Your task to perform on an android device: Show the shopping cart on ebay.com. Add "razer blackwidow" to the cart on ebay.com Image 0: 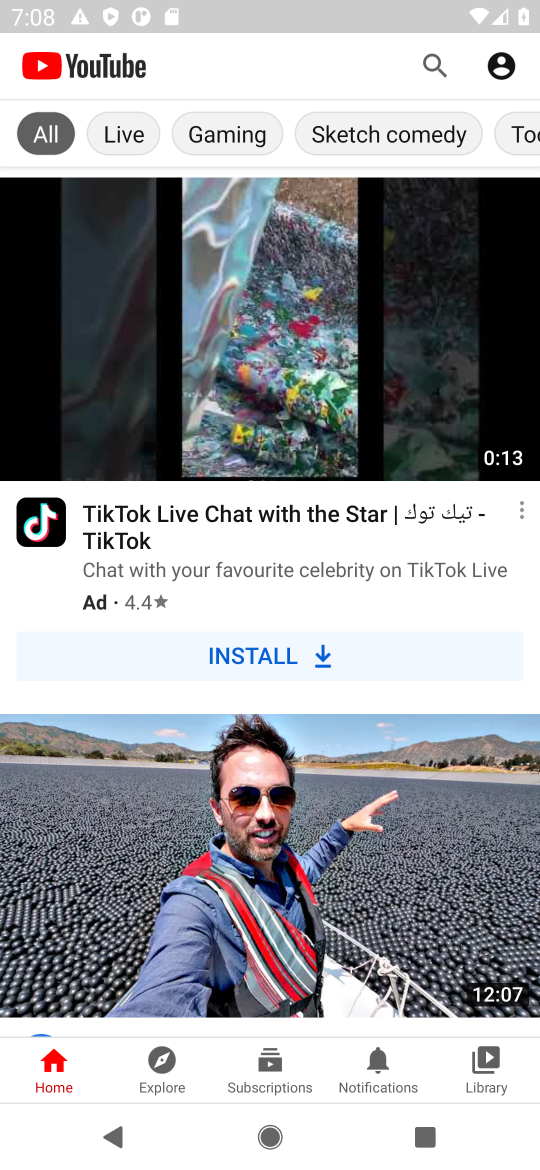
Step 0: press home button
Your task to perform on an android device: Show the shopping cart on ebay.com. Add "razer blackwidow" to the cart on ebay.com Image 1: 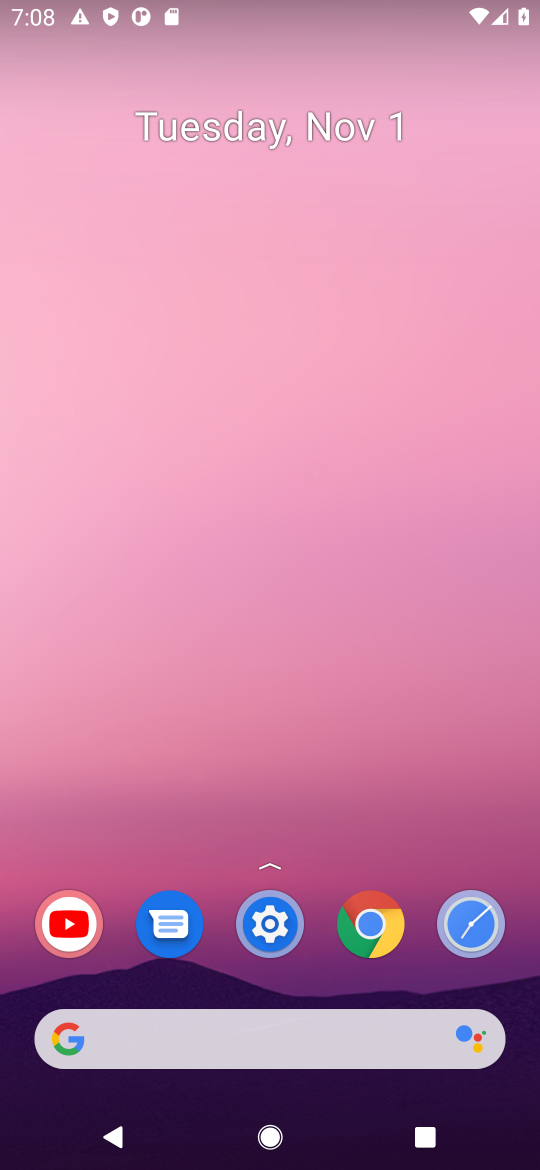
Step 1: click (100, 1040)
Your task to perform on an android device: Show the shopping cart on ebay.com. Add "razer blackwidow" to the cart on ebay.com Image 2: 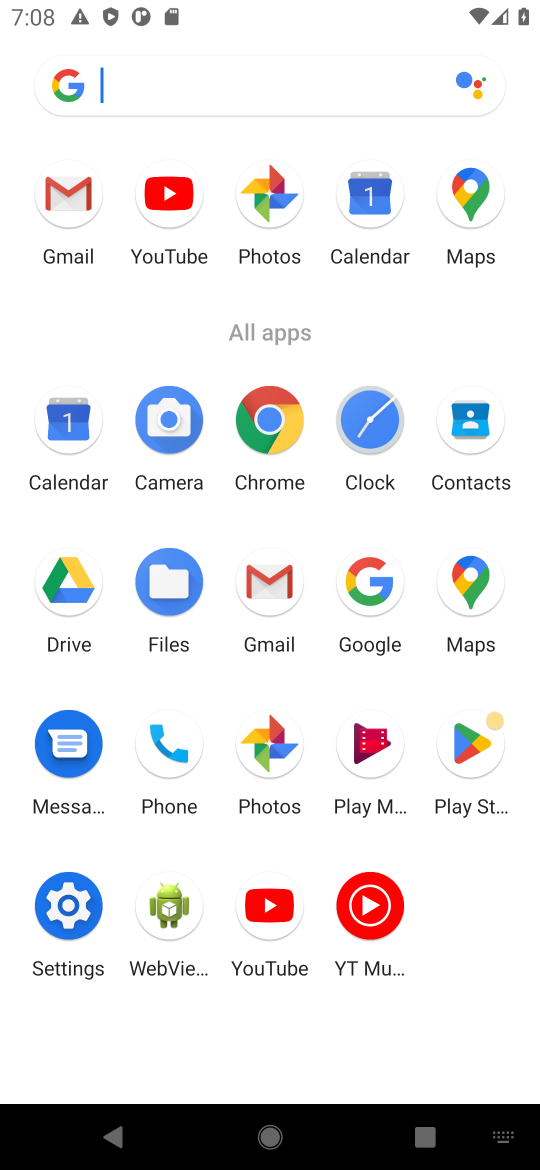
Step 2: click (372, 592)
Your task to perform on an android device: Show the shopping cart on ebay.com. Add "razer blackwidow" to the cart on ebay.com Image 3: 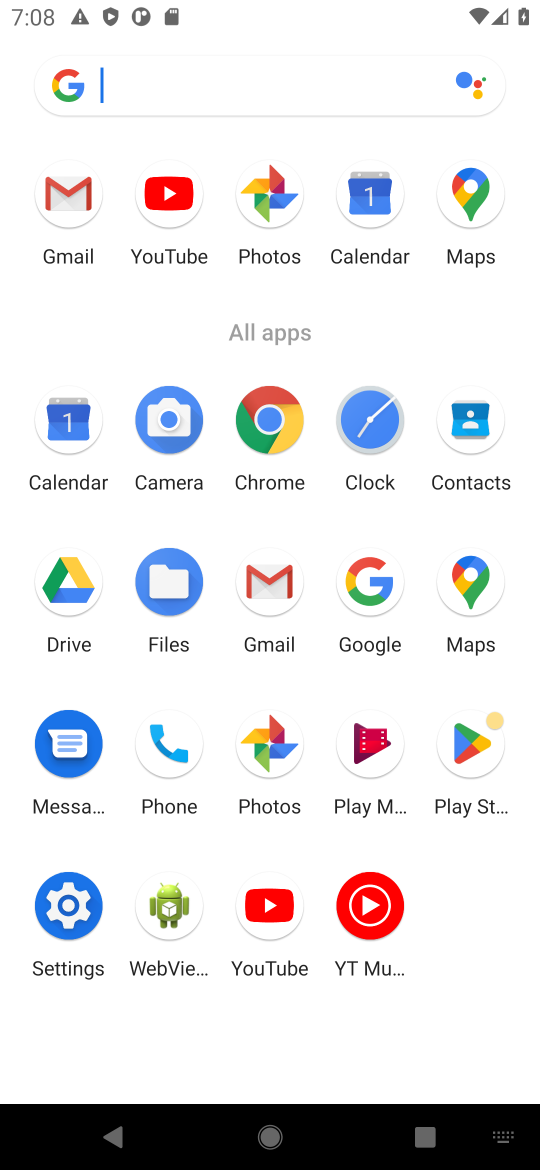
Step 3: click (372, 592)
Your task to perform on an android device: Show the shopping cart on ebay.com. Add "razer blackwidow" to the cart on ebay.com Image 4: 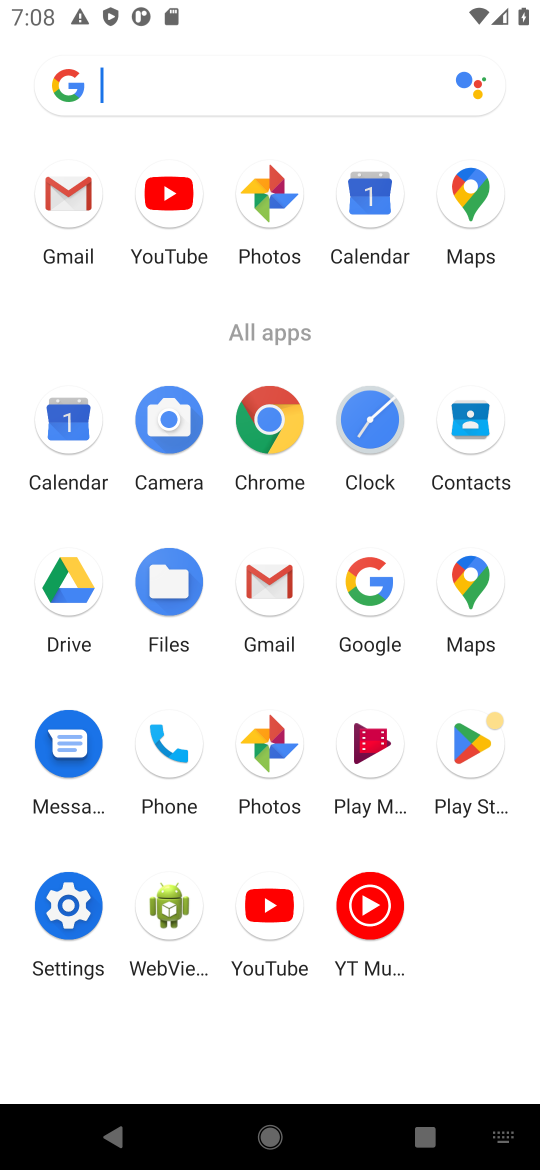
Step 4: press home button
Your task to perform on an android device: Show the shopping cart on ebay.com. Add "razer blackwidow" to the cart on ebay.com Image 5: 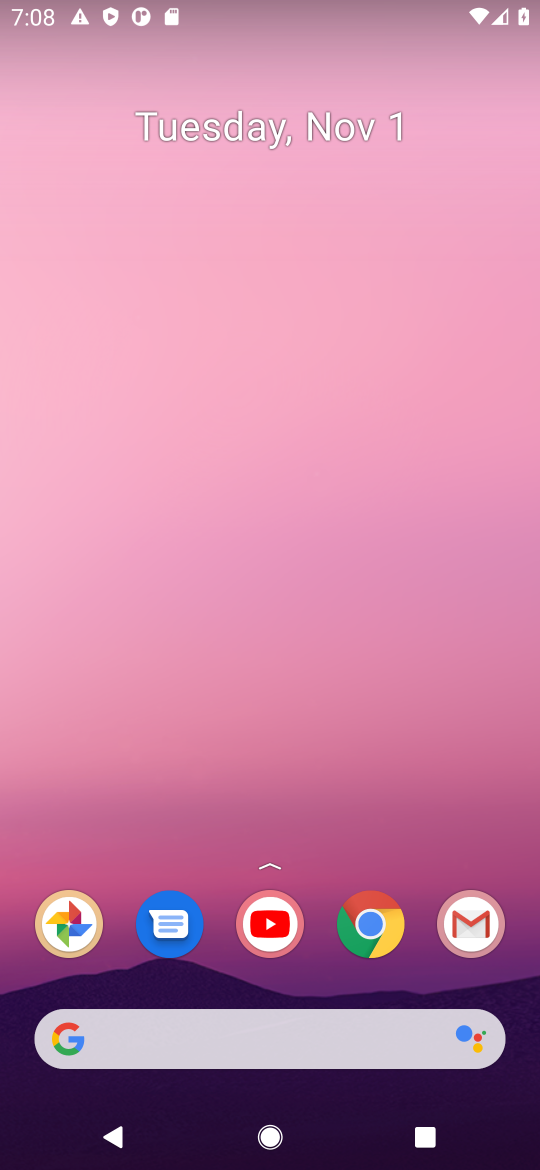
Step 5: click (102, 1048)
Your task to perform on an android device: Show the shopping cart on ebay.com. Add "razer blackwidow" to the cart on ebay.com Image 6: 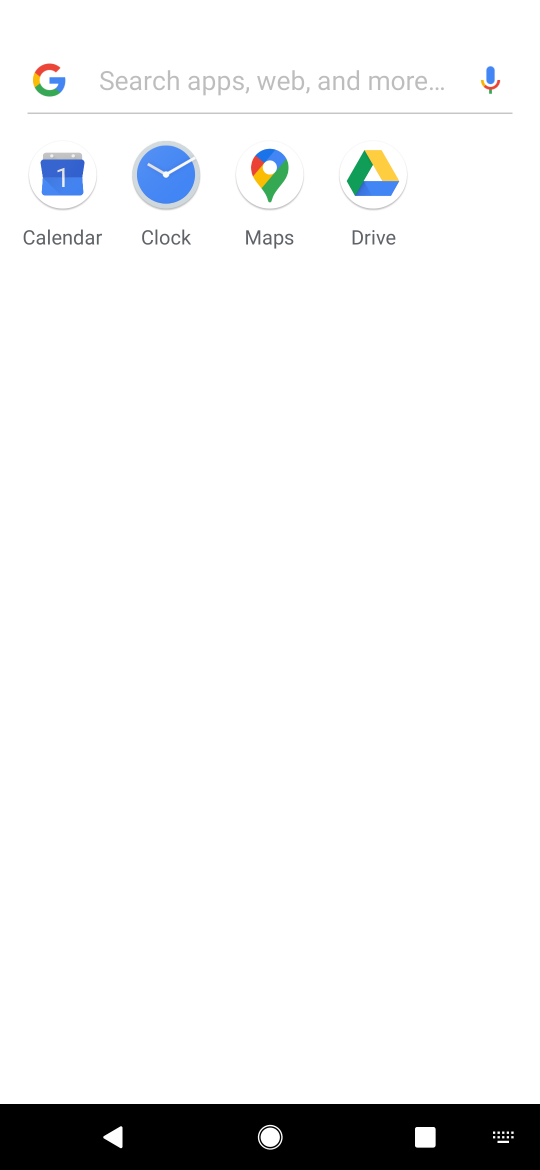
Step 6: press home button
Your task to perform on an android device: Show the shopping cart on ebay.com. Add "razer blackwidow" to the cart on ebay.com Image 7: 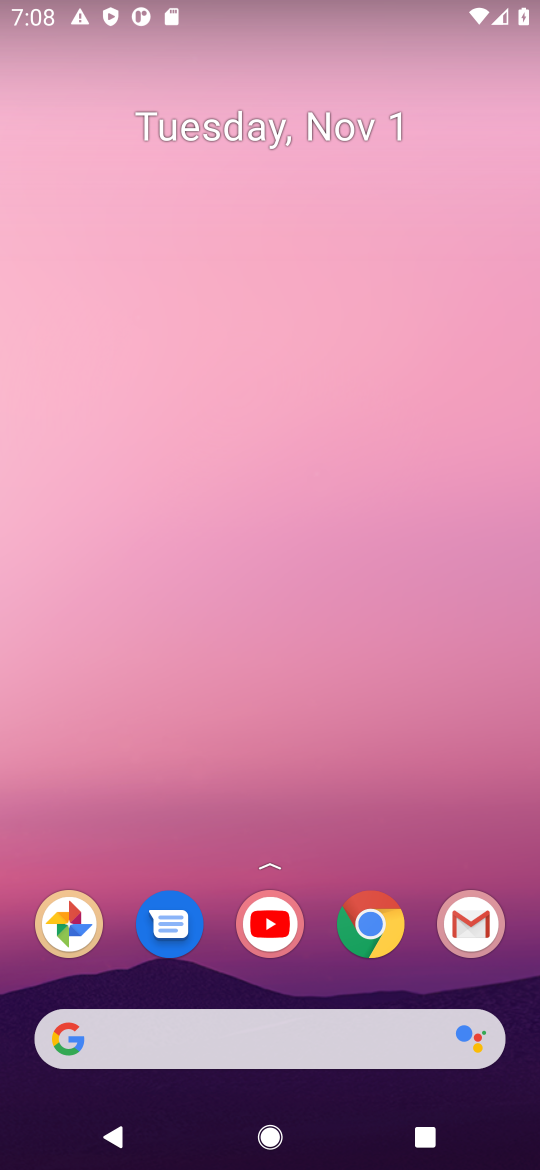
Step 7: drag from (385, 754) to (393, 14)
Your task to perform on an android device: Show the shopping cart on ebay.com. Add "razer blackwidow" to the cart on ebay.com Image 8: 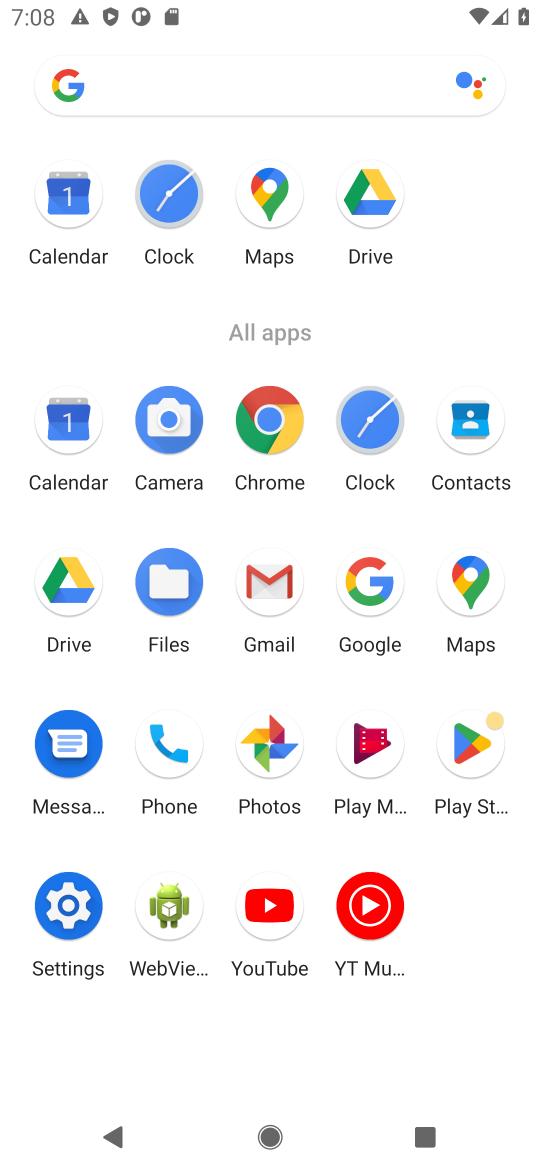
Step 8: click (364, 602)
Your task to perform on an android device: Show the shopping cart on ebay.com. Add "razer blackwidow" to the cart on ebay.com Image 9: 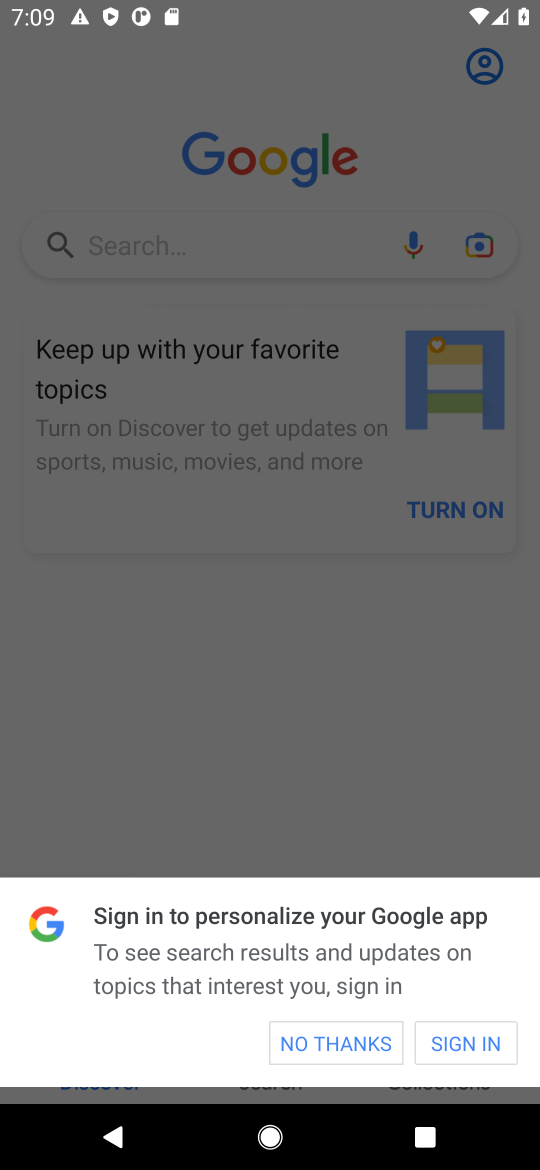
Step 9: click (472, 1039)
Your task to perform on an android device: Show the shopping cart on ebay.com. Add "razer blackwidow" to the cart on ebay.com Image 10: 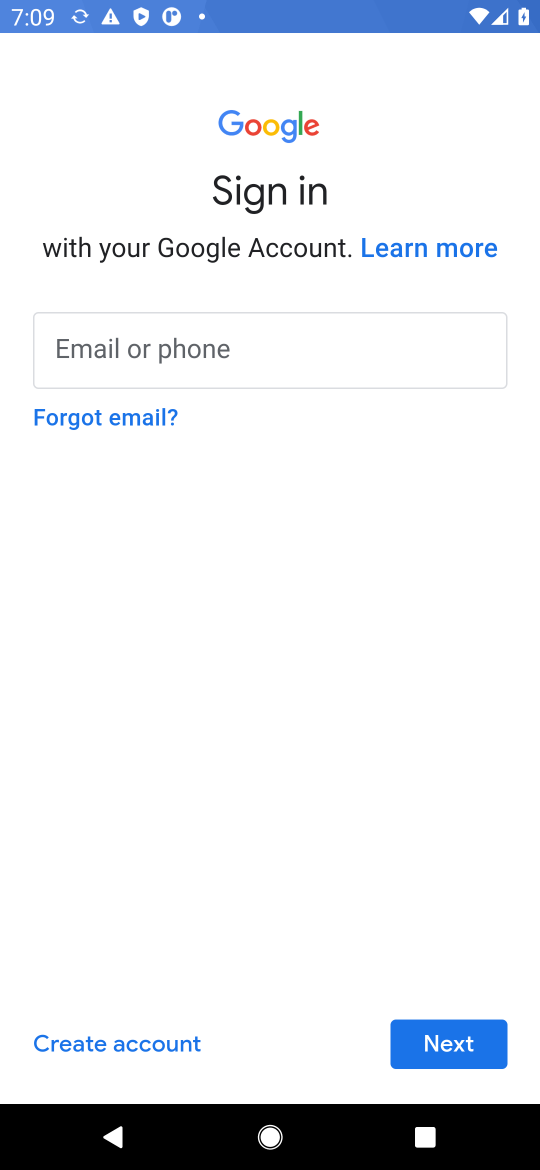
Step 10: press back button
Your task to perform on an android device: Show the shopping cart on ebay.com. Add "razer blackwidow" to the cart on ebay.com Image 11: 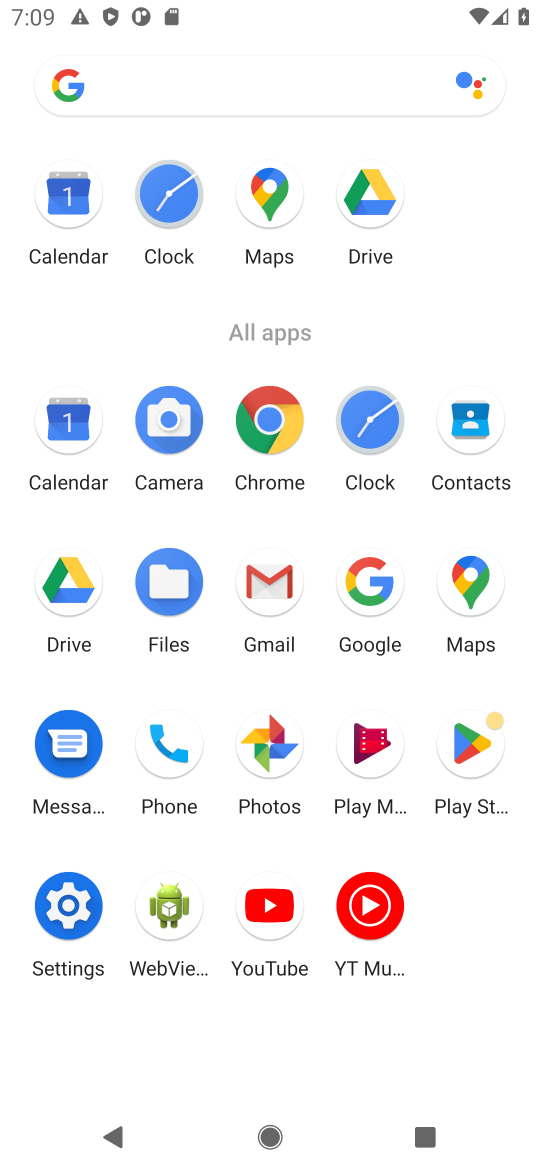
Step 11: click (363, 586)
Your task to perform on an android device: Show the shopping cart on ebay.com. Add "razer blackwidow" to the cart on ebay.com Image 12: 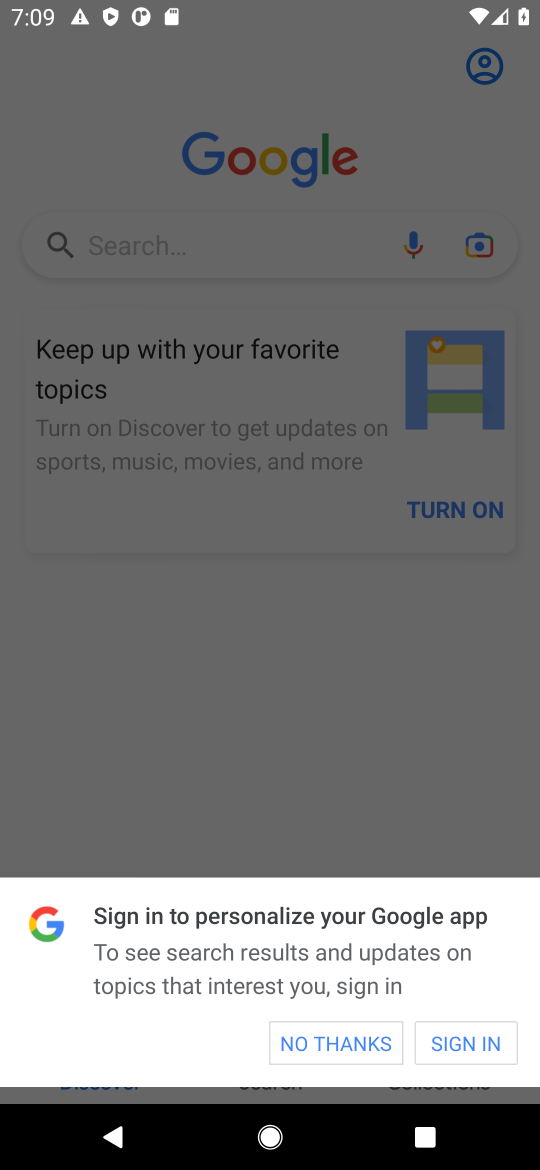
Step 12: click (332, 1049)
Your task to perform on an android device: Show the shopping cart on ebay.com. Add "razer blackwidow" to the cart on ebay.com Image 13: 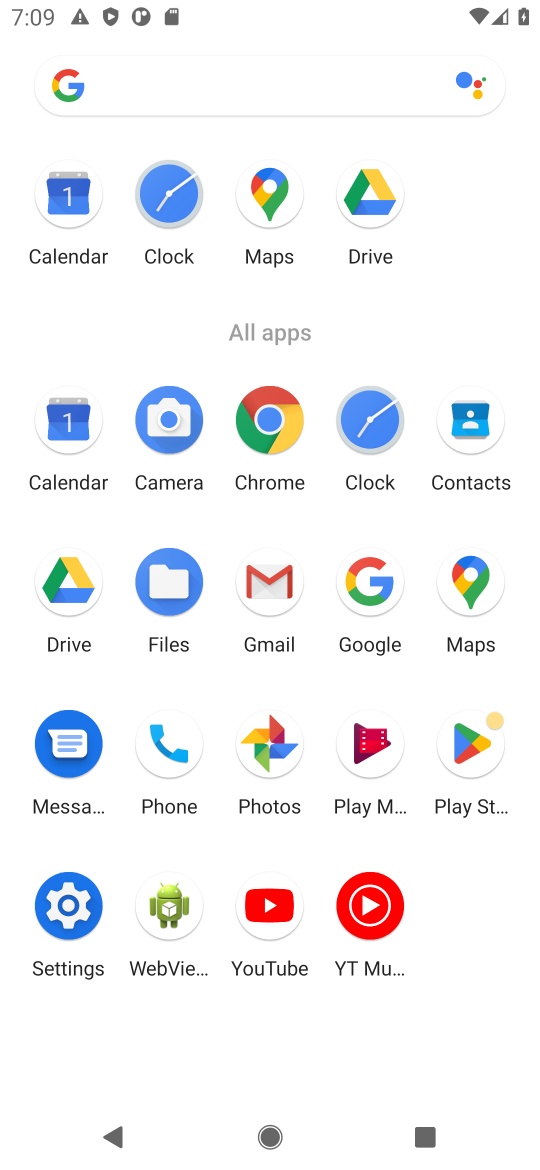
Step 13: click (382, 604)
Your task to perform on an android device: Show the shopping cart on ebay.com. Add "razer blackwidow" to the cart on ebay.com Image 14: 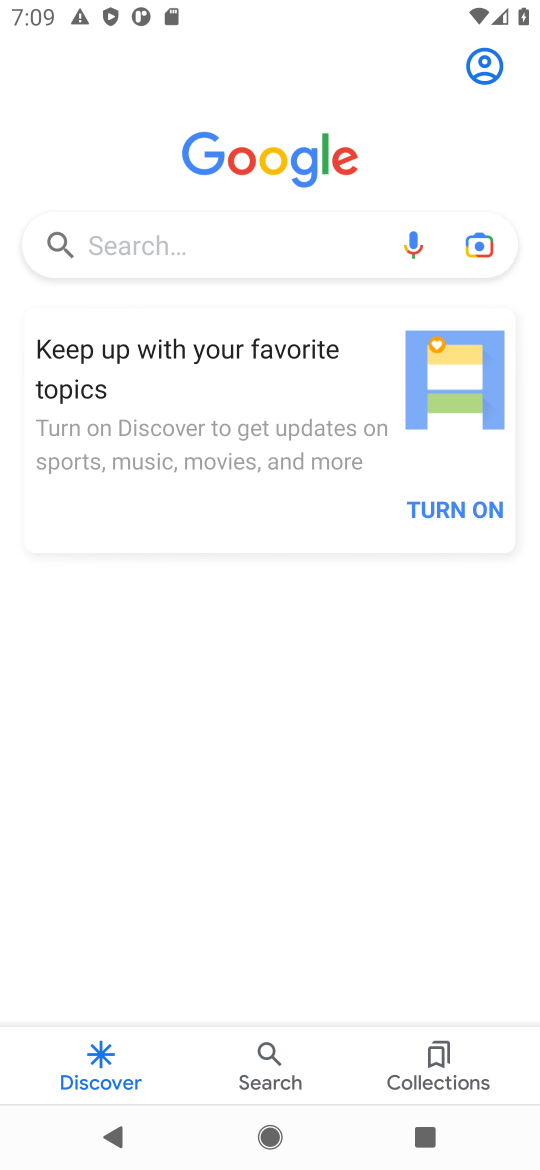
Step 14: click (165, 234)
Your task to perform on an android device: Show the shopping cart on ebay.com. Add "razer blackwidow" to the cart on ebay.com Image 15: 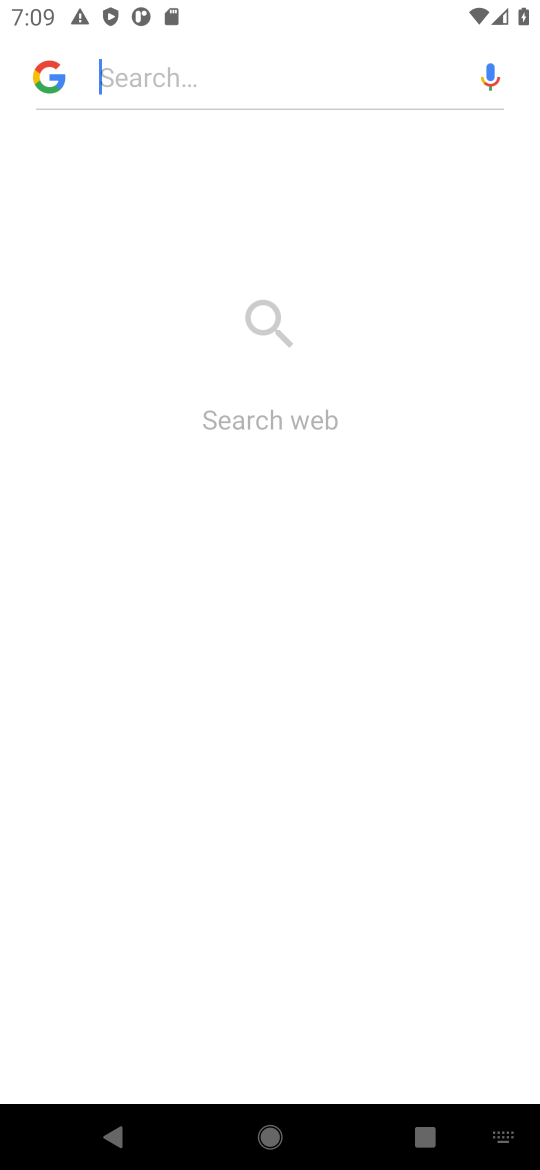
Step 15: press enter
Your task to perform on an android device: Show the shopping cart on ebay.com. Add "razer blackwidow" to the cart on ebay.com Image 16: 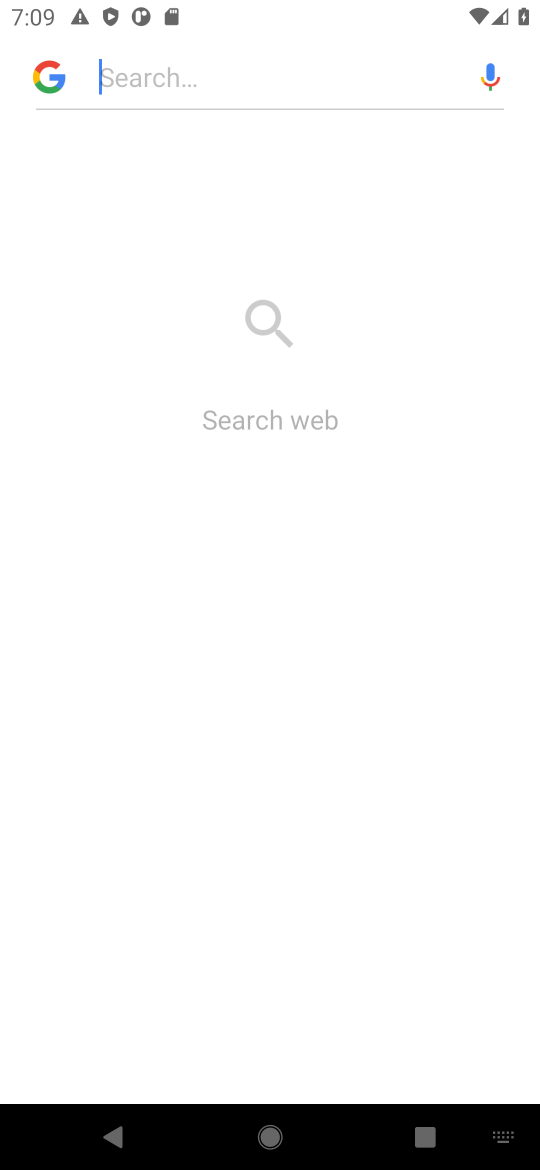
Step 16: type "ebay.com"
Your task to perform on an android device: Show the shopping cart on ebay.com. Add "razer blackwidow" to the cart on ebay.com Image 17: 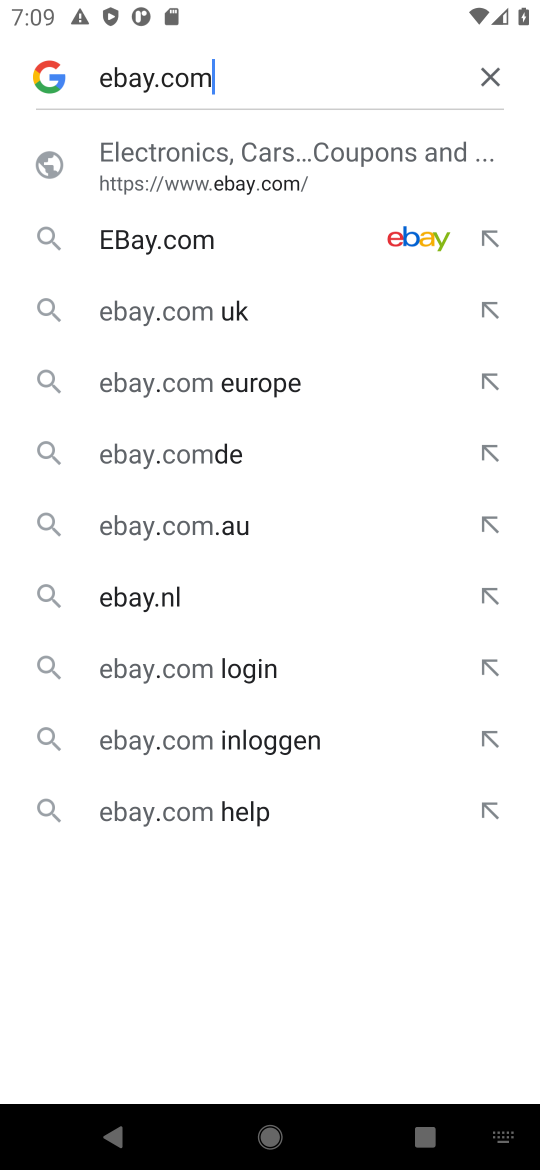
Step 17: press enter
Your task to perform on an android device: Show the shopping cart on ebay.com. Add "razer blackwidow" to the cart on ebay.com Image 18: 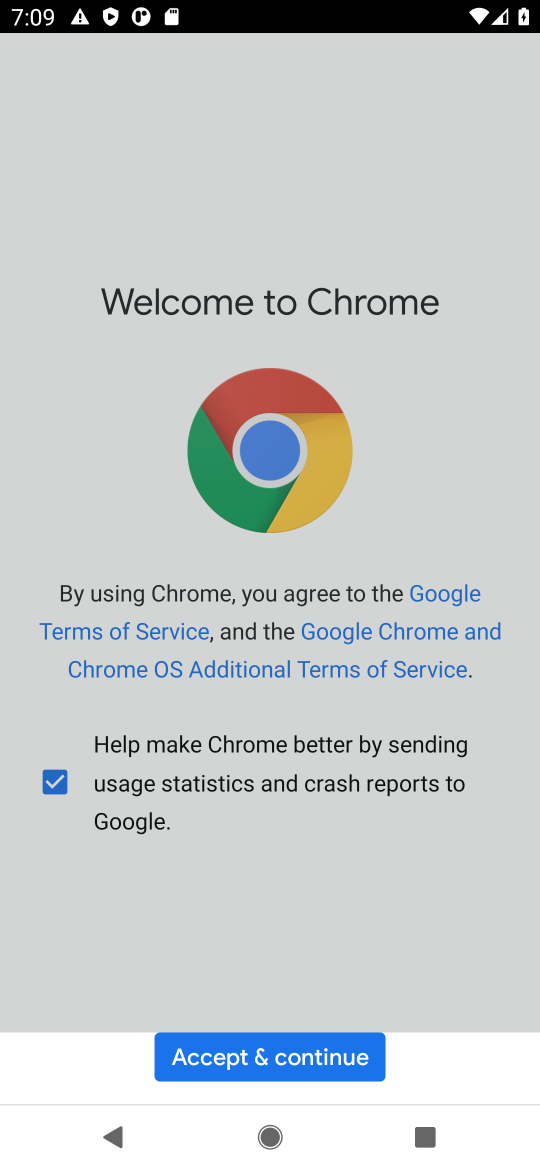
Step 18: click (336, 1066)
Your task to perform on an android device: Show the shopping cart on ebay.com. Add "razer blackwidow" to the cart on ebay.com Image 19: 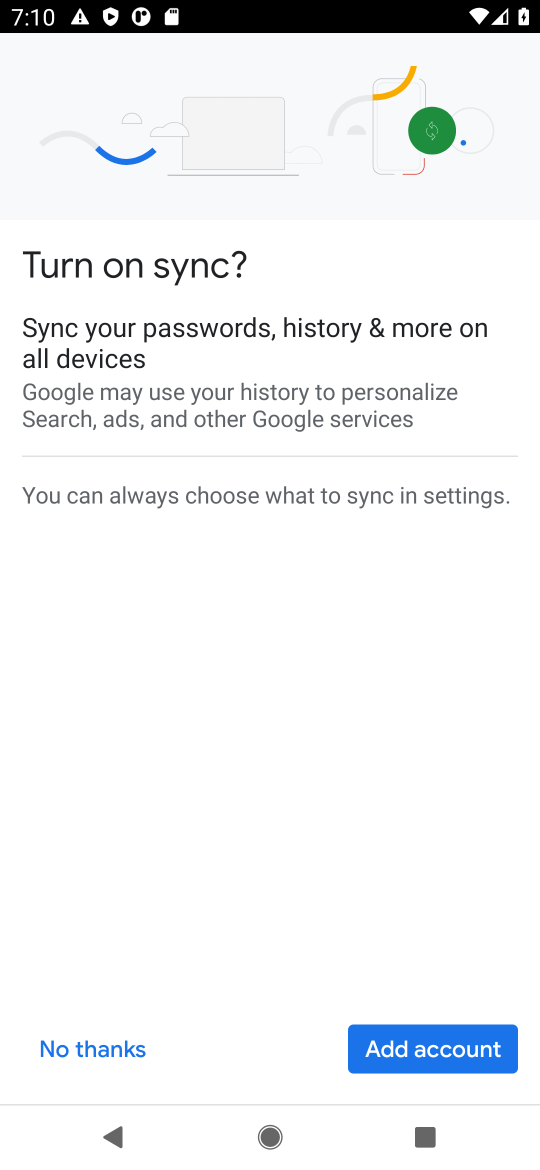
Step 19: click (65, 1057)
Your task to perform on an android device: Show the shopping cart on ebay.com. Add "razer blackwidow" to the cart on ebay.com Image 20: 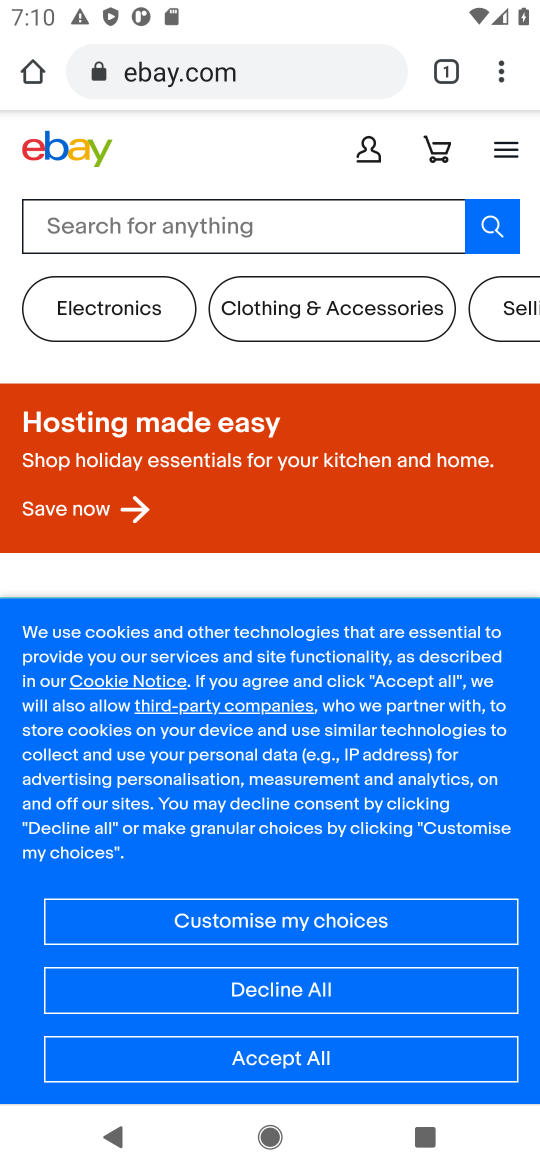
Step 20: click (311, 1063)
Your task to perform on an android device: Show the shopping cart on ebay.com. Add "razer blackwidow" to the cart on ebay.com Image 21: 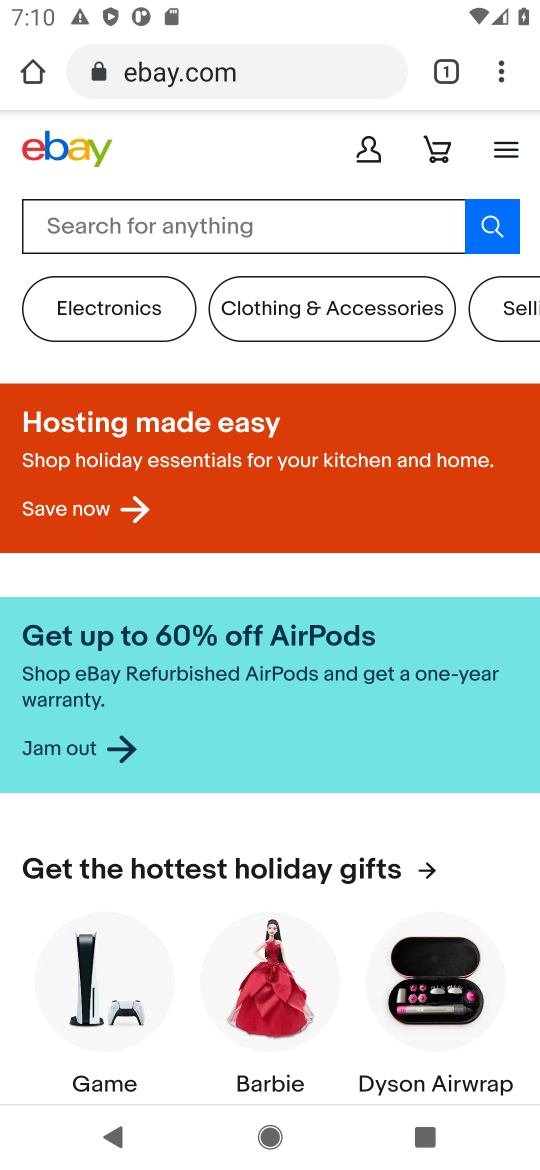
Step 21: click (435, 153)
Your task to perform on an android device: Show the shopping cart on ebay.com. Add "razer blackwidow" to the cart on ebay.com Image 22: 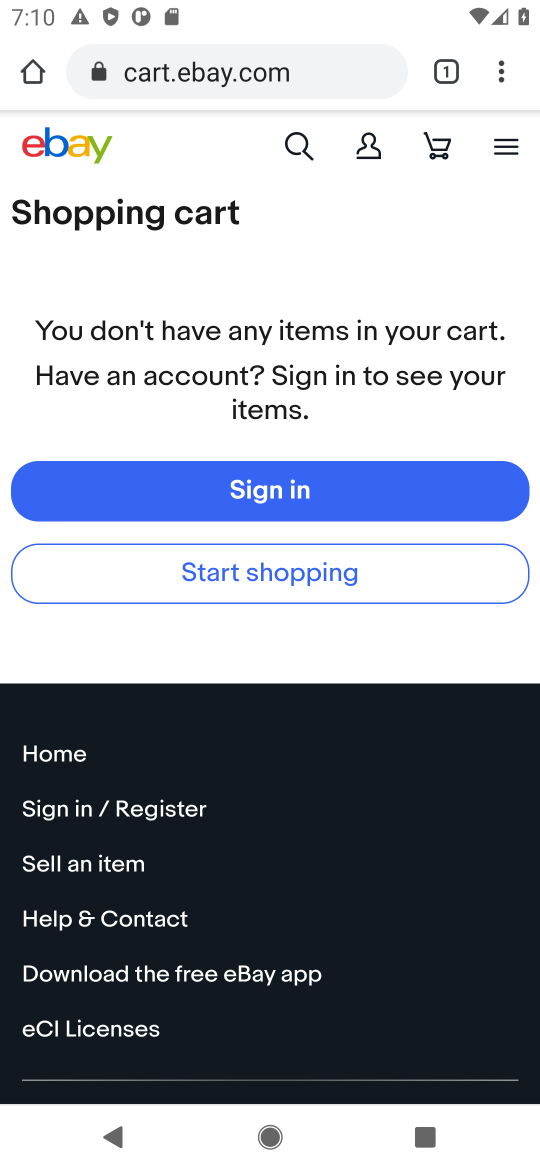
Step 22: click (301, 150)
Your task to perform on an android device: Show the shopping cart on ebay.com. Add "razer blackwidow" to the cart on ebay.com Image 23: 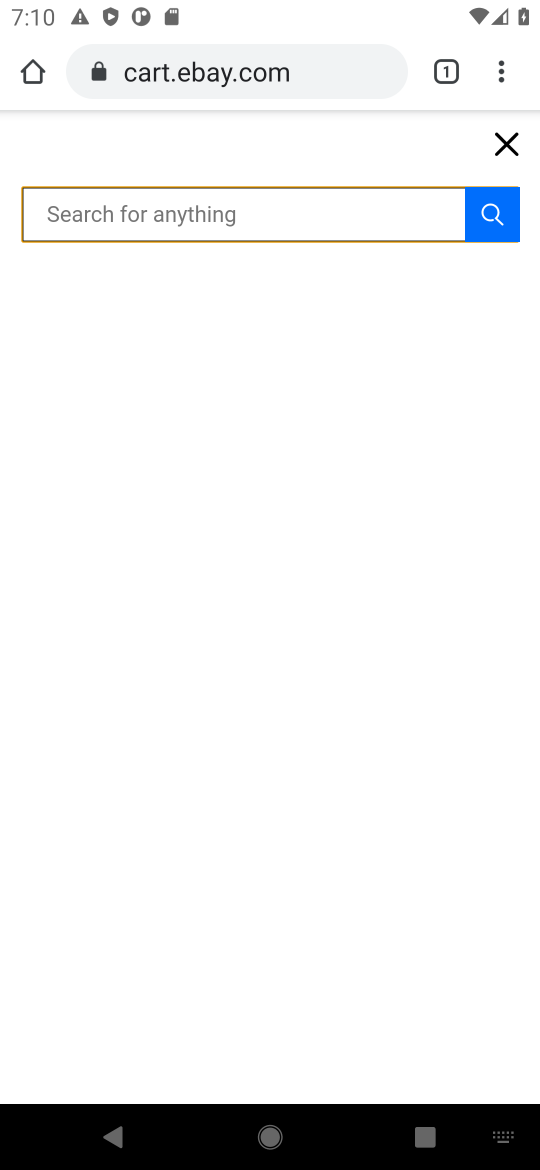
Step 23: press enter
Your task to perform on an android device: Show the shopping cart on ebay.com. Add "razer blackwidow" to the cart on ebay.com Image 24: 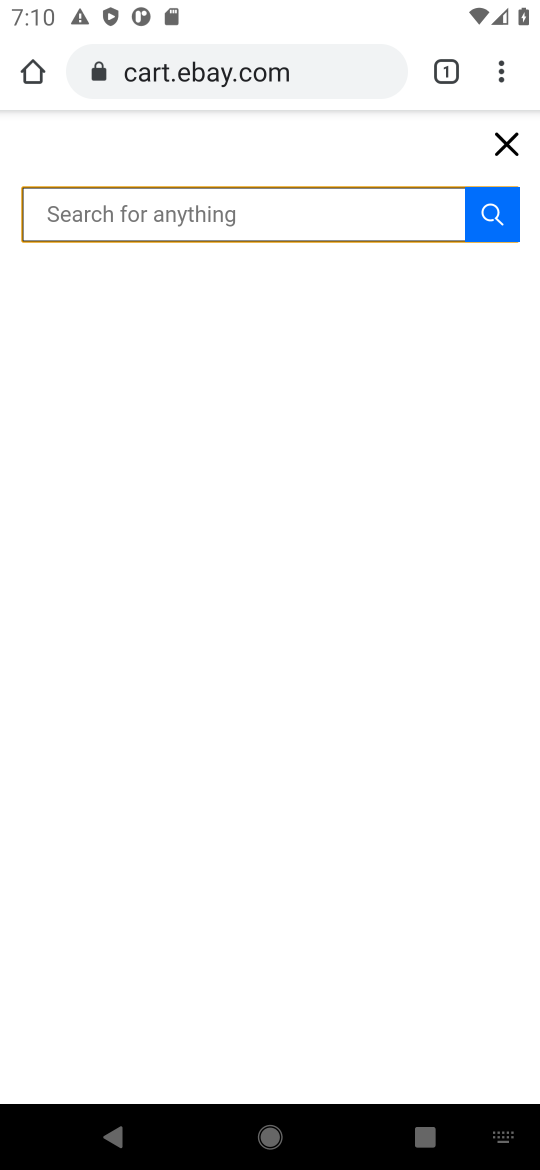
Step 24: type "razer blackwidow"
Your task to perform on an android device: Show the shopping cart on ebay.com. Add "razer blackwidow" to the cart on ebay.com Image 25: 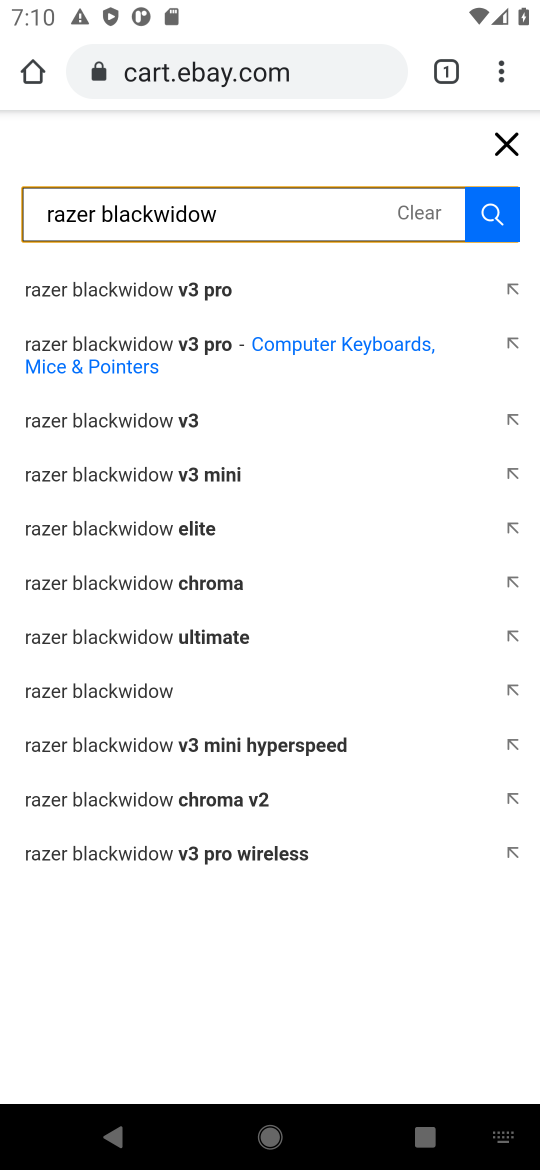
Step 25: press enter
Your task to perform on an android device: Show the shopping cart on ebay.com. Add "razer blackwidow" to the cart on ebay.com Image 26: 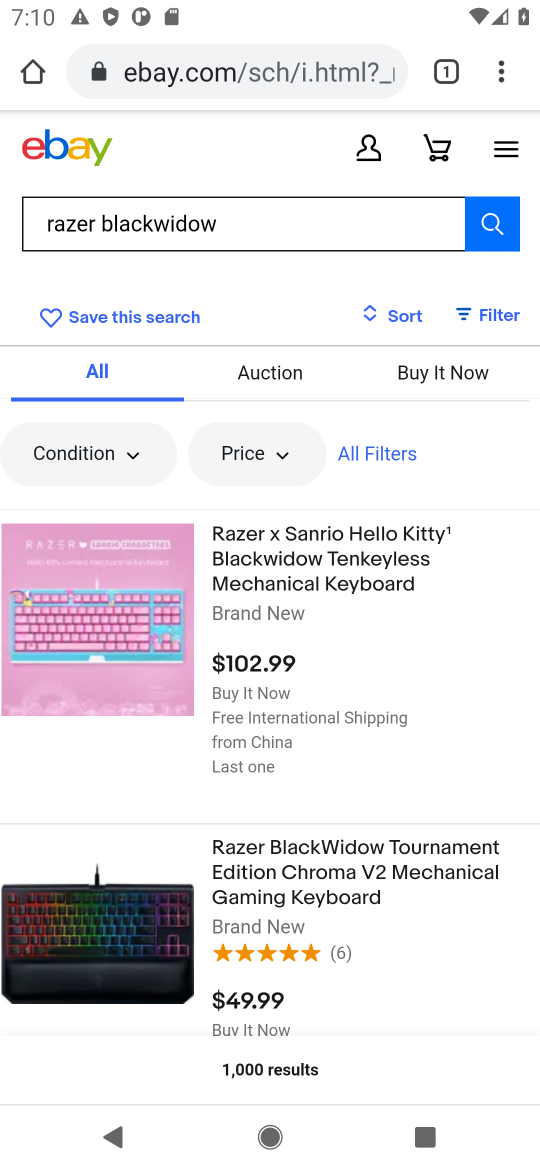
Step 26: click (335, 890)
Your task to perform on an android device: Show the shopping cart on ebay.com. Add "razer blackwidow" to the cart on ebay.com Image 27: 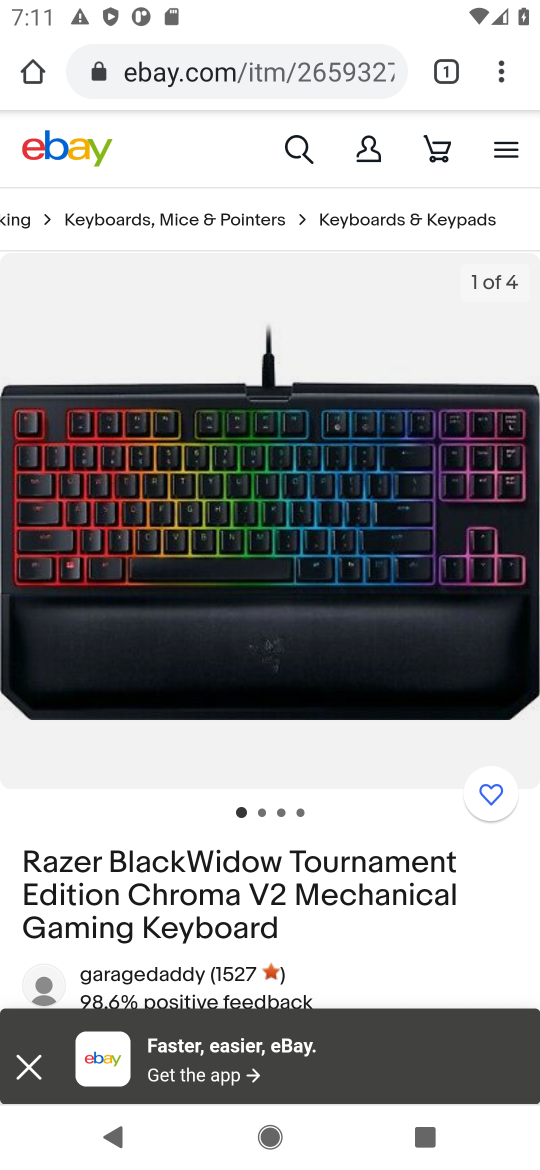
Step 27: drag from (346, 941) to (357, 449)
Your task to perform on an android device: Show the shopping cart on ebay.com. Add "razer blackwidow" to the cart on ebay.com Image 28: 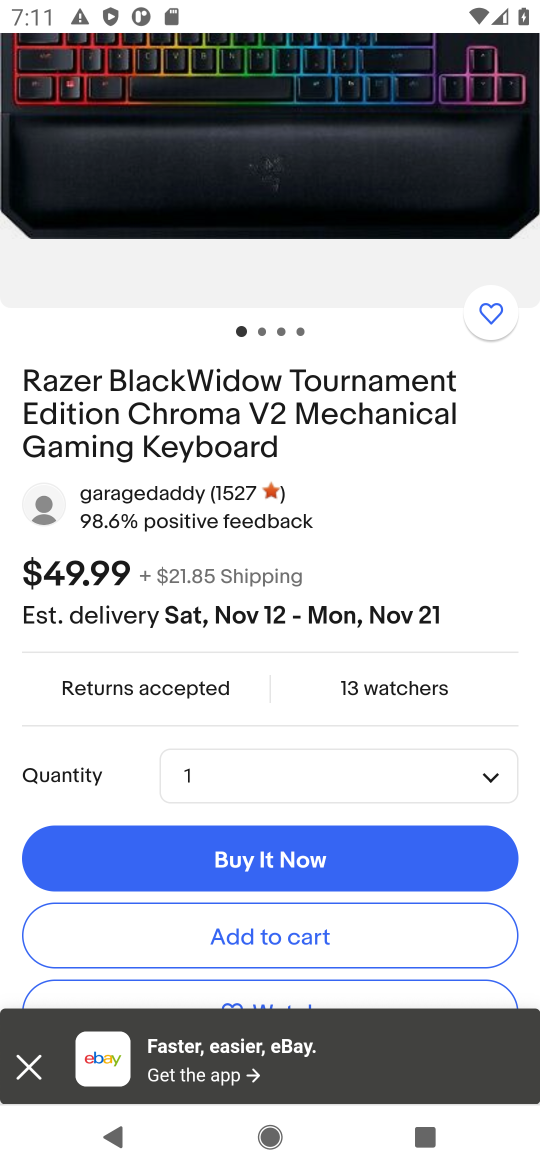
Step 28: drag from (344, 911) to (344, 479)
Your task to perform on an android device: Show the shopping cart on ebay.com. Add "razer blackwidow" to the cart on ebay.com Image 29: 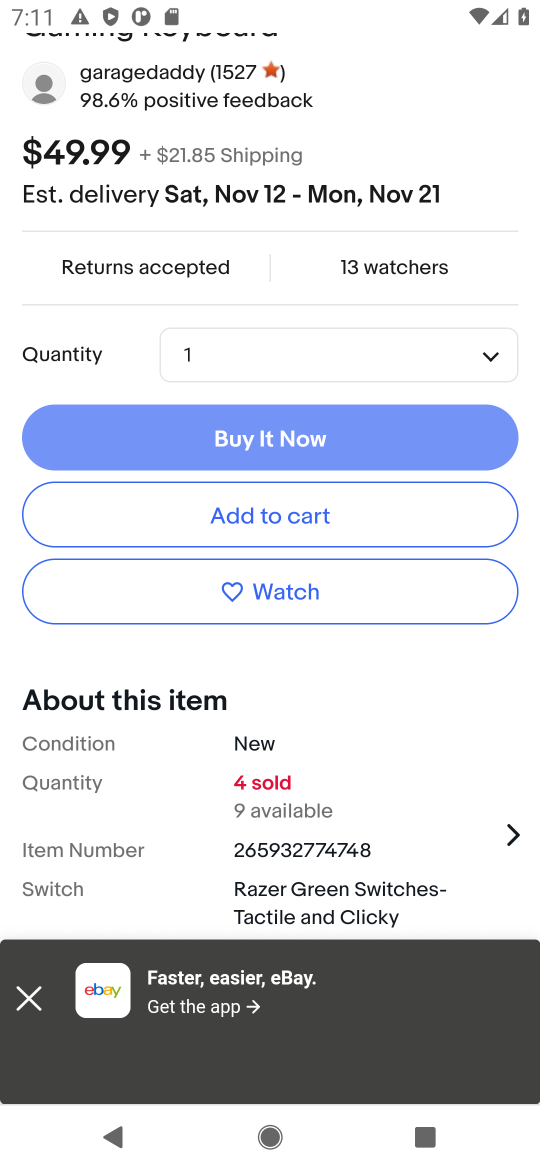
Step 29: click (260, 515)
Your task to perform on an android device: Show the shopping cart on ebay.com. Add "razer blackwidow" to the cart on ebay.com Image 30: 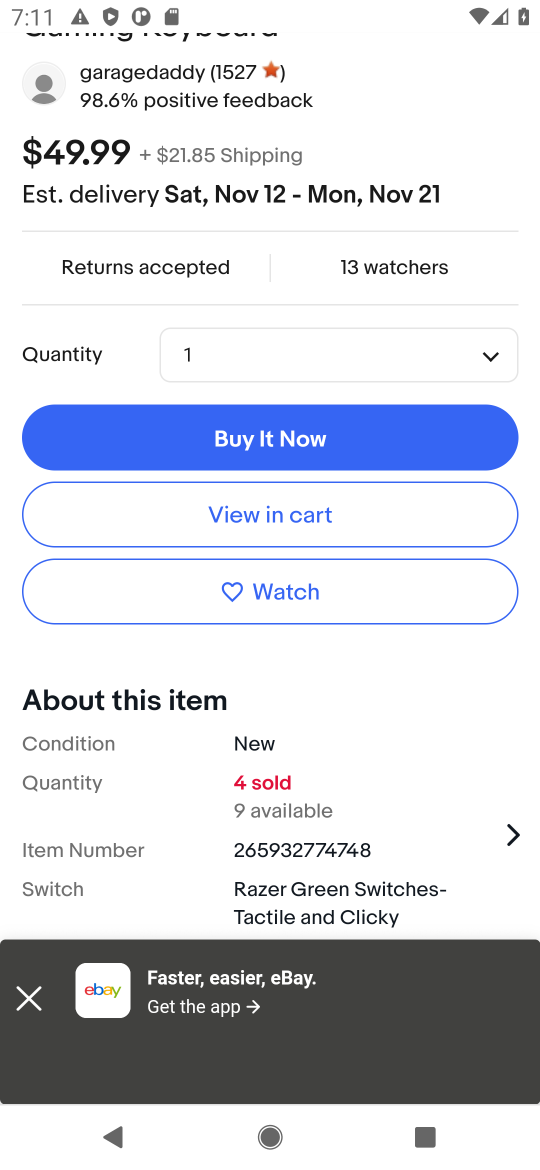
Step 30: task complete